Your task to perform on an android device: Open network settings Image 0: 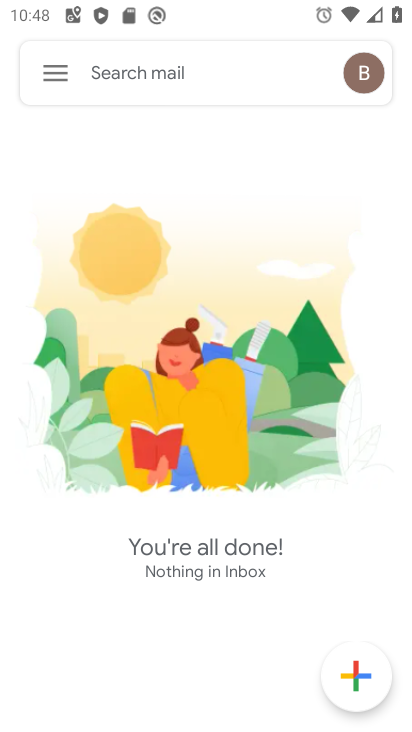
Step 0: press home button
Your task to perform on an android device: Open network settings Image 1: 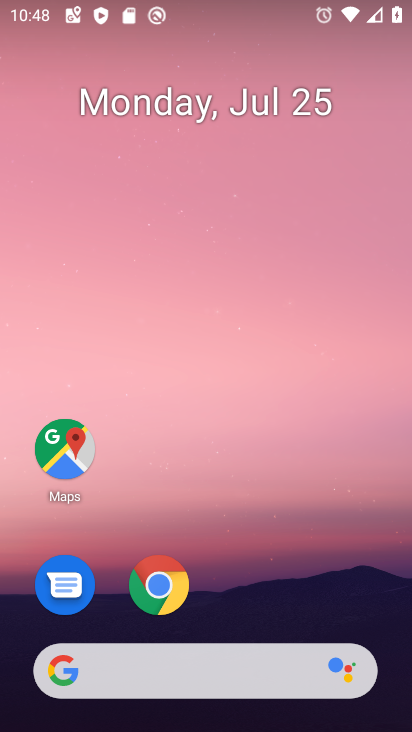
Step 1: drag from (202, 620) to (298, 2)
Your task to perform on an android device: Open network settings Image 2: 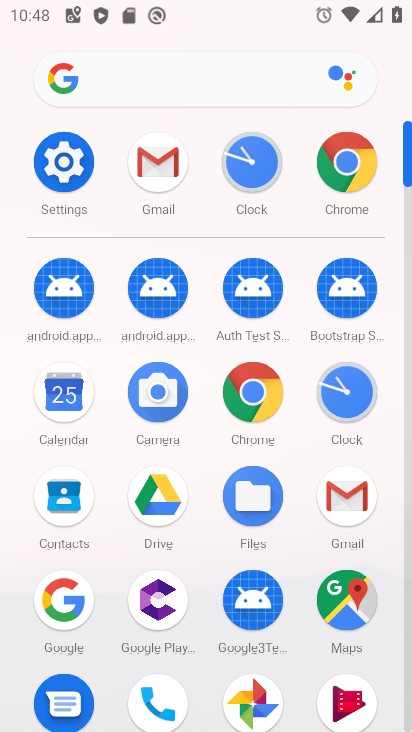
Step 2: click (54, 148)
Your task to perform on an android device: Open network settings Image 3: 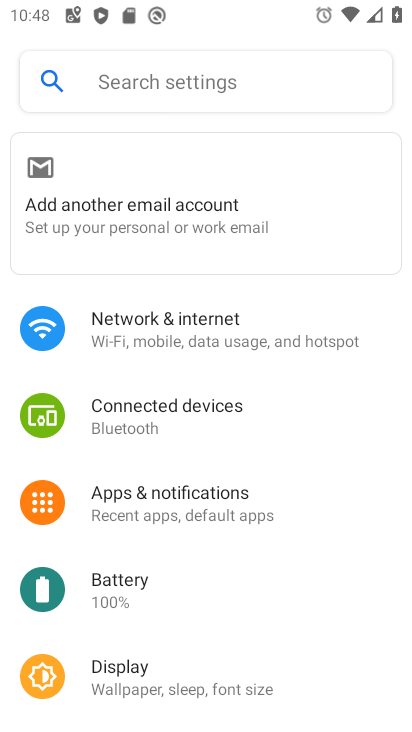
Step 3: click (129, 335)
Your task to perform on an android device: Open network settings Image 4: 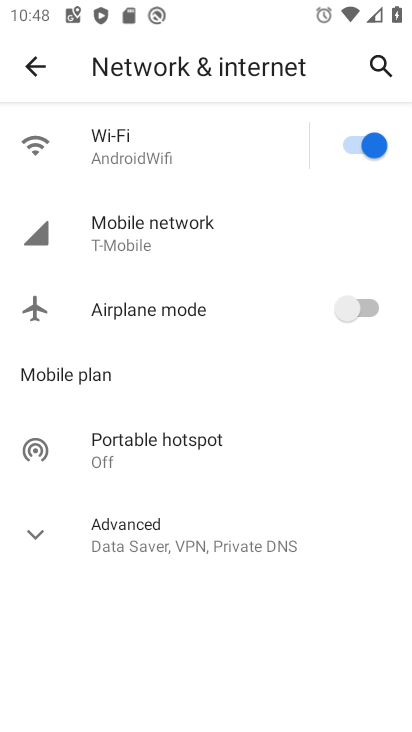
Step 4: click (186, 235)
Your task to perform on an android device: Open network settings Image 5: 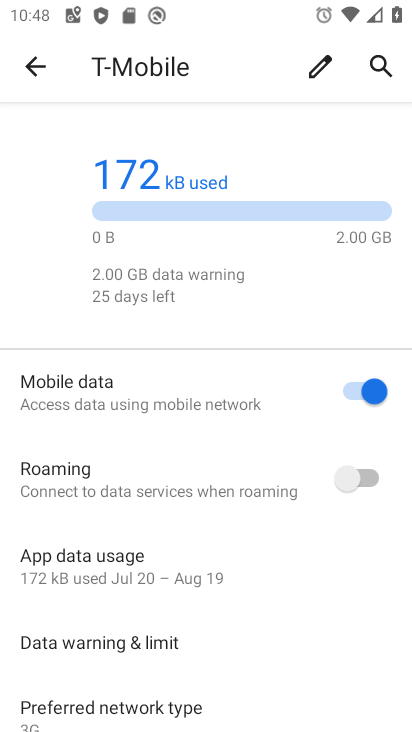
Step 5: task complete